Your task to perform on an android device: Go to battery settings Image 0: 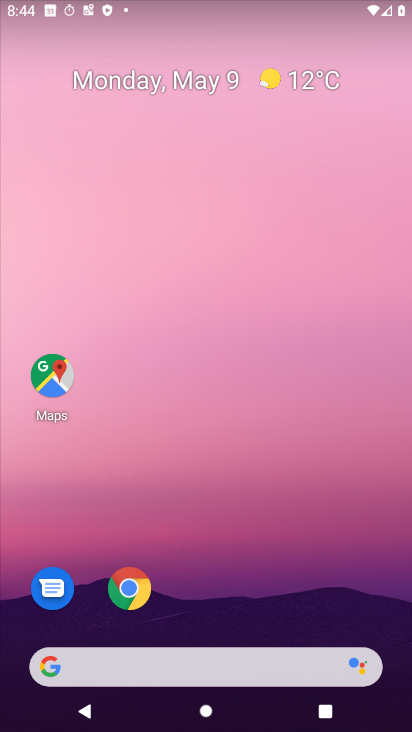
Step 0: drag from (188, 671) to (354, 142)
Your task to perform on an android device: Go to battery settings Image 1: 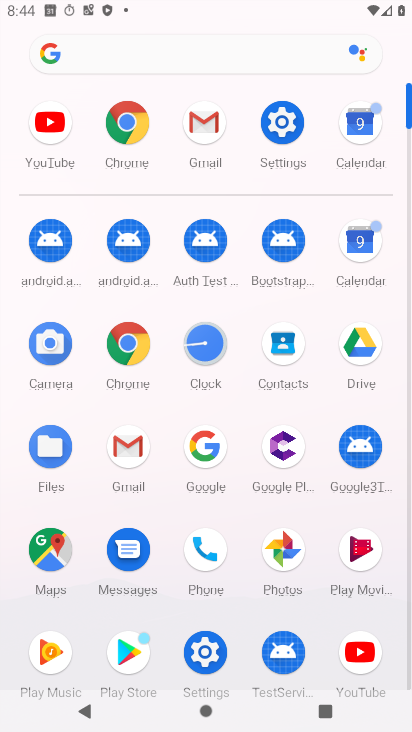
Step 1: click (283, 125)
Your task to perform on an android device: Go to battery settings Image 2: 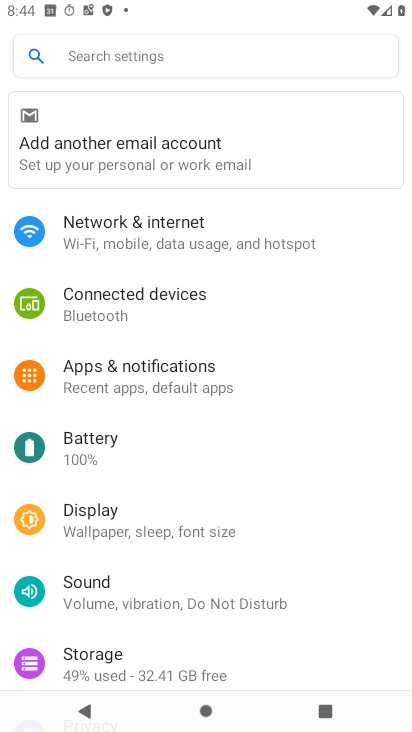
Step 2: click (88, 444)
Your task to perform on an android device: Go to battery settings Image 3: 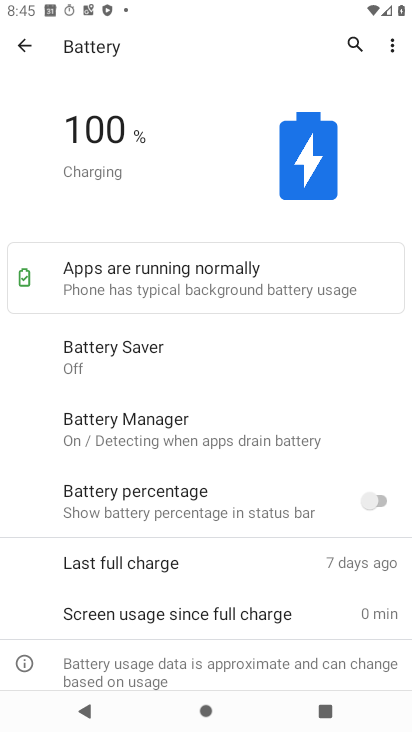
Step 3: task complete